Your task to perform on an android device: Go to ESPN.com Image 0: 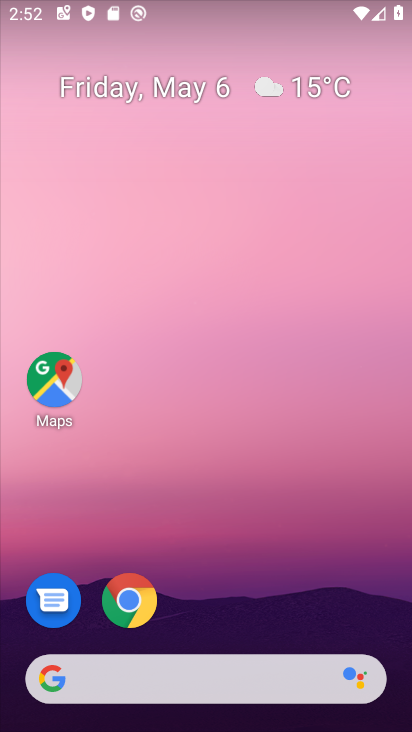
Step 0: drag from (261, 560) to (257, 39)
Your task to perform on an android device: Go to ESPN.com Image 1: 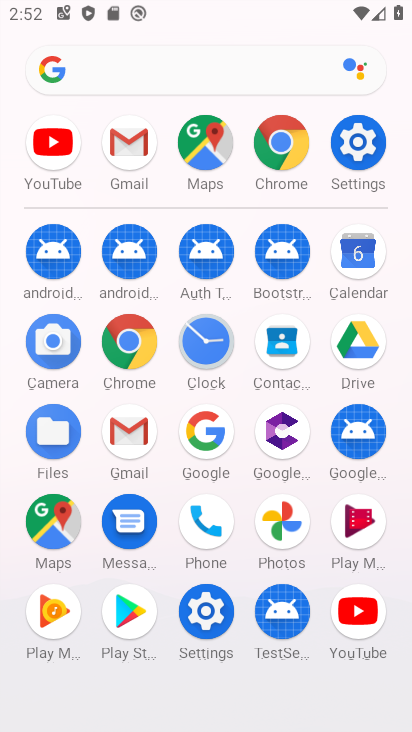
Step 1: drag from (6, 574) to (12, 256)
Your task to perform on an android device: Go to ESPN.com Image 2: 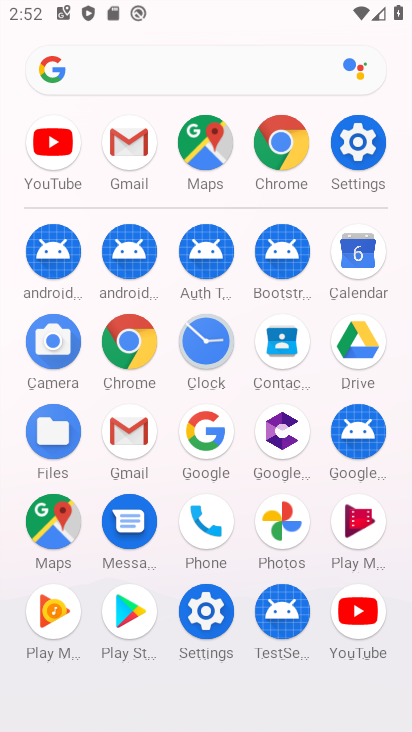
Step 2: click (123, 338)
Your task to perform on an android device: Go to ESPN.com Image 3: 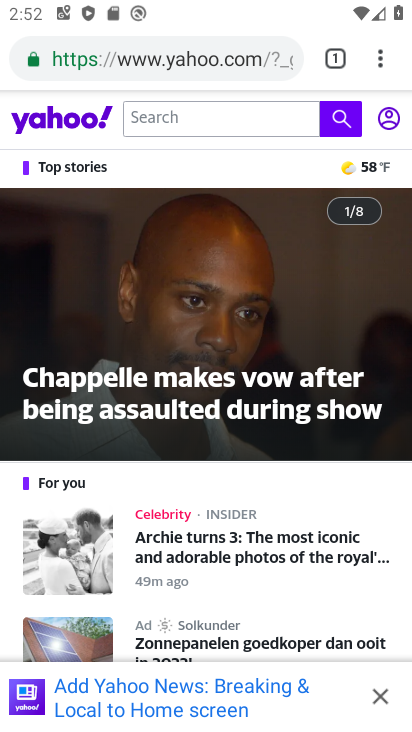
Step 3: click (166, 59)
Your task to perform on an android device: Go to ESPN.com Image 4: 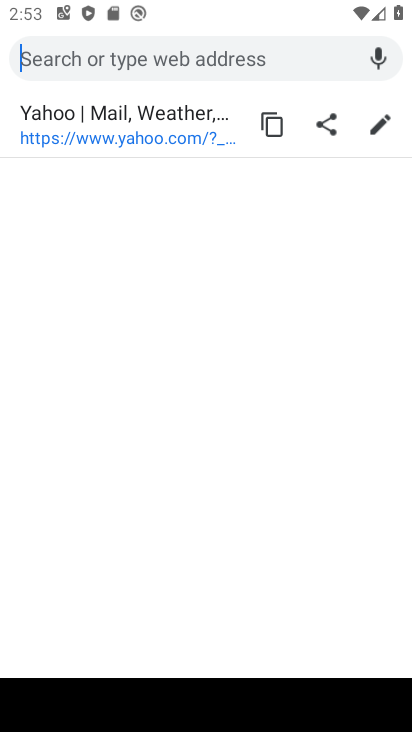
Step 4: type "ESPN.com"
Your task to perform on an android device: Go to ESPN.com Image 5: 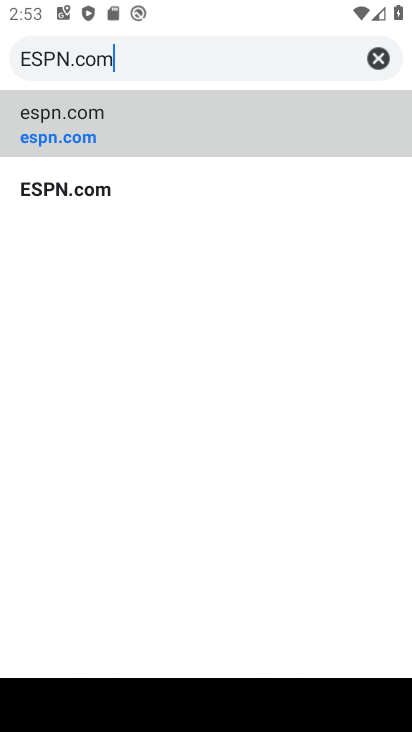
Step 5: type ""
Your task to perform on an android device: Go to ESPN.com Image 6: 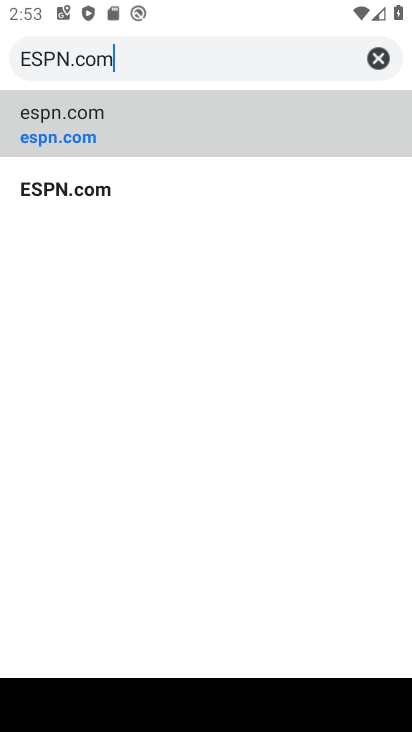
Step 6: click (111, 187)
Your task to perform on an android device: Go to ESPN.com Image 7: 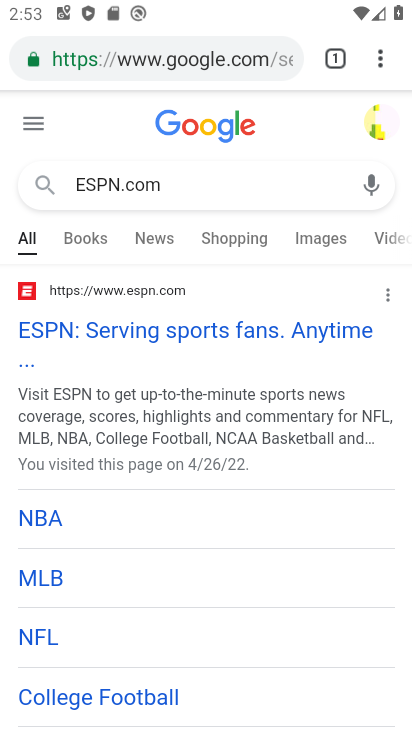
Step 7: click (111, 326)
Your task to perform on an android device: Go to ESPN.com Image 8: 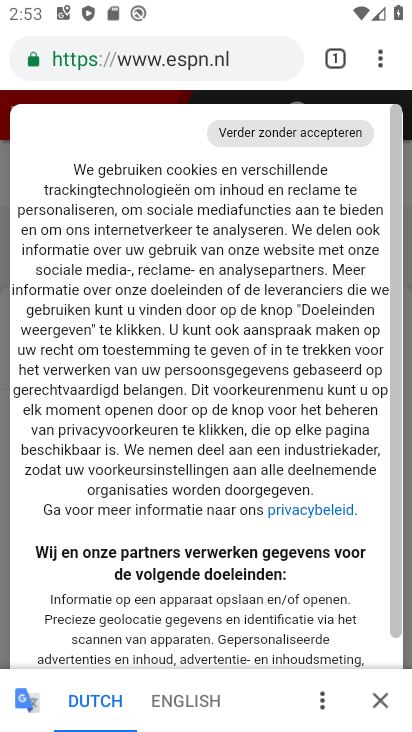
Step 8: drag from (230, 559) to (266, 216)
Your task to perform on an android device: Go to ESPN.com Image 9: 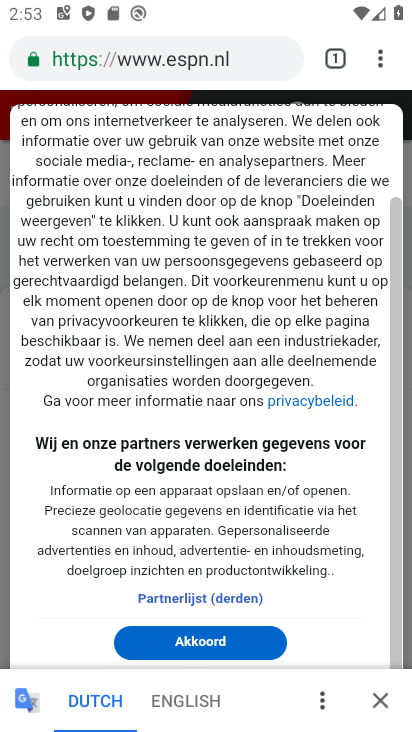
Step 9: click (204, 640)
Your task to perform on an android device: Go to ESPN.com Image 10: 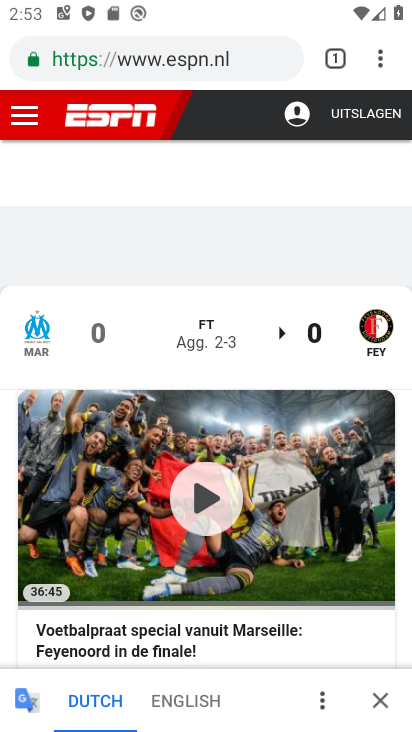
Step 10: task complete